Your task to perform on an android device: Open the Play Movies app and select the watchlist tab. Image 0: 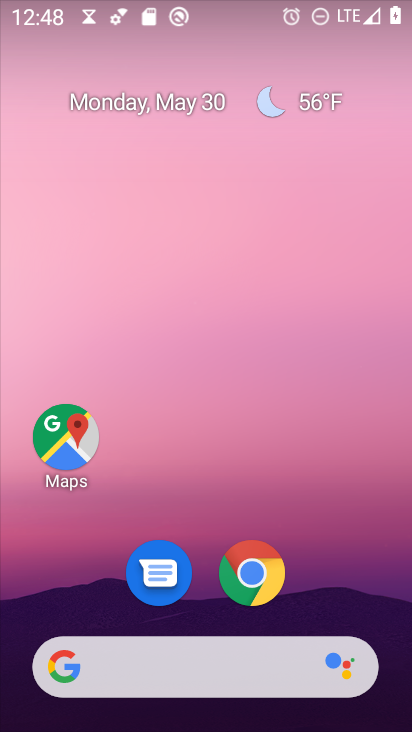
Step 0: drag from (288, 597) to (365, 24)
Your task to perform on an android device: Open the Play Movies app and select the watchlist tab. Image 1: 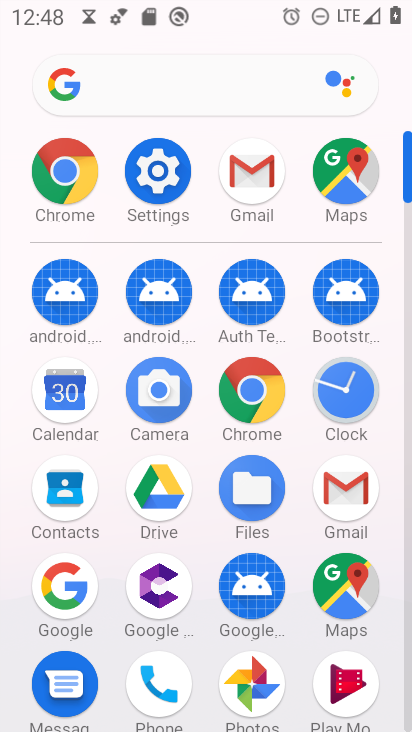
Step 1: drag from (302, 644) to (331, 385)
Your task to perform on an android device: Open the Play Movies app and select the watchlist tab. Image 2: 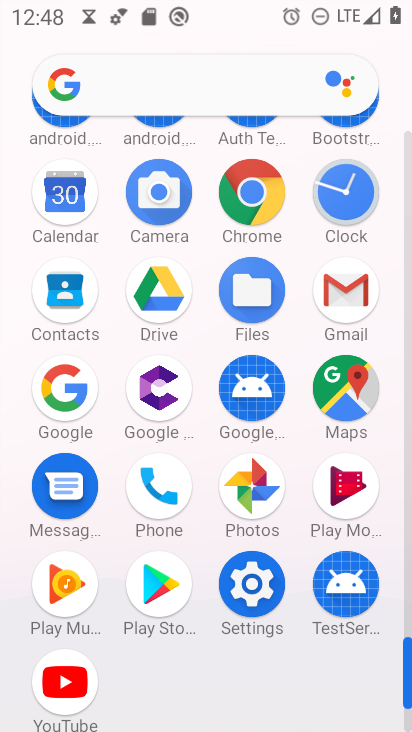
Step 2: click (351, 507)
Your task to perform on an android device: Open the Play Movies app and select the watchlist tab. Image 3: 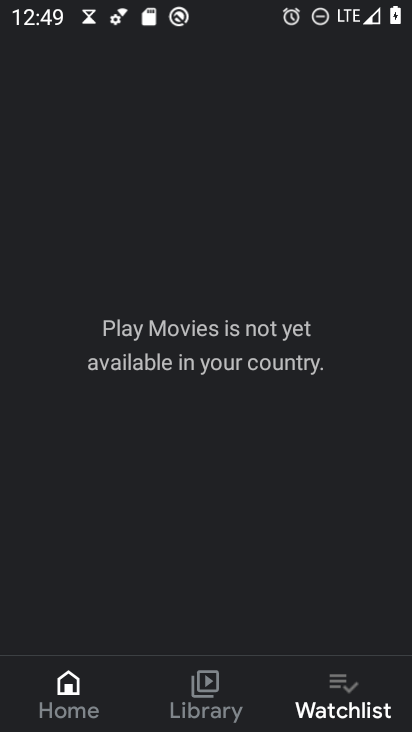
Step 3: click (327, 704)
Your task to perform on an android device: Open the Play Movies app and select the watchlist tab. Image 4: 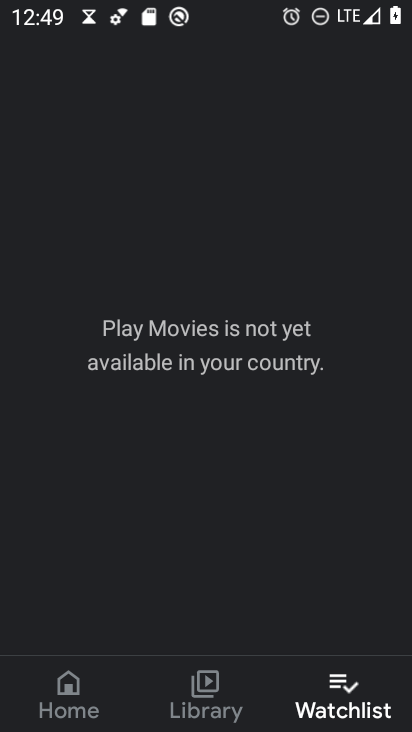
Step 4: task complete